Your task to perform on an android device: Go to battery settings Image 0: 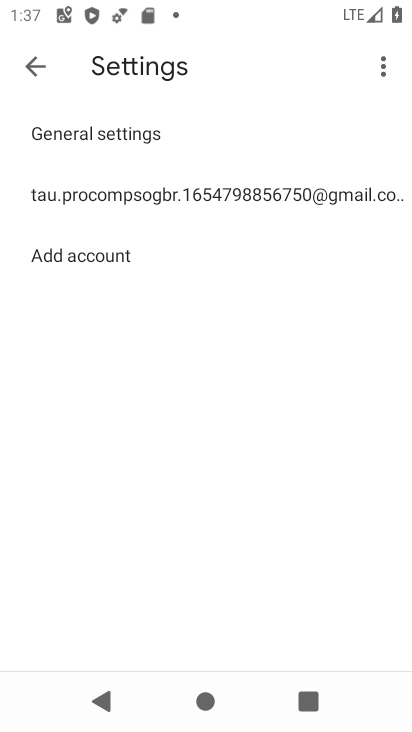
Step 0: press home button
Your task to perform on an android device: Go to battery settings Image 1: 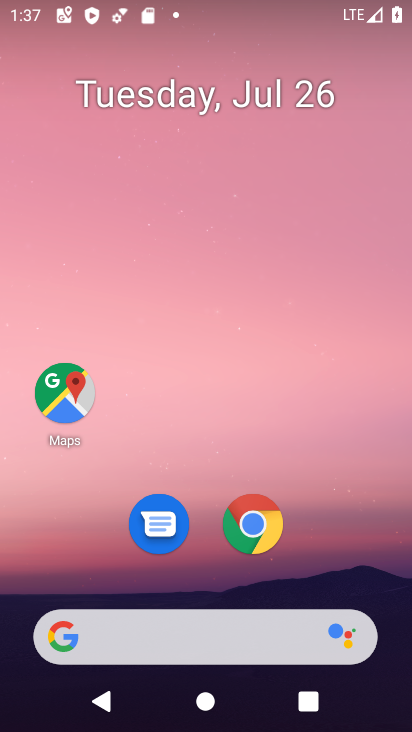
Step 1: drag from (336, 519) to (328, 63)
Your task to perform on an android device: Go to battery settings Image 2: 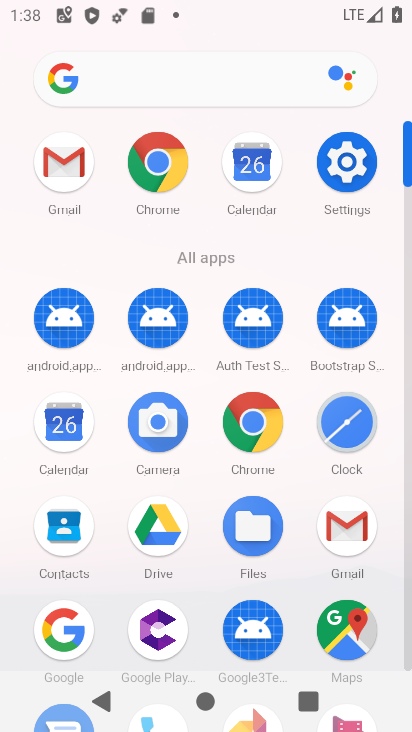
Step 2: click (351, 161)
Your task to perform on an android device: Go to battery settings Image 3: 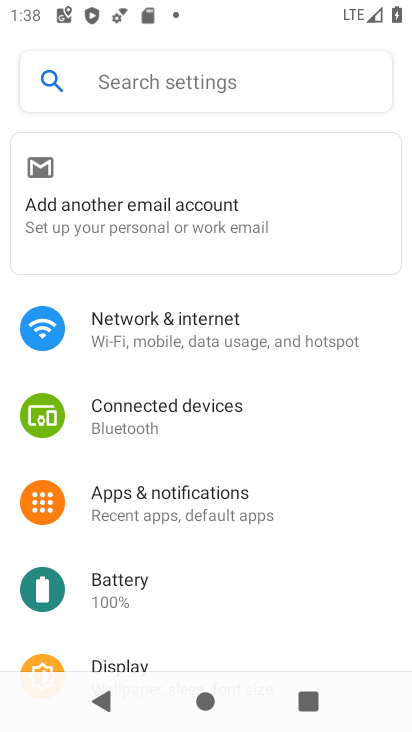
Step 3: click (115, 579)
Your task to perform on an android device: Go to battery settings Image 4: 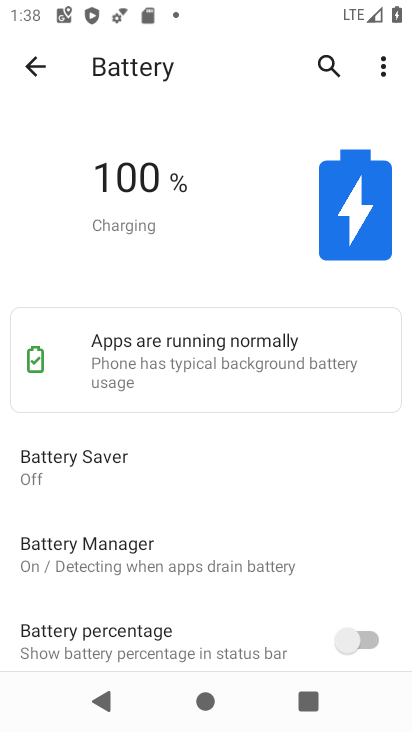
Step 4: task complete